Your task to perform on an android device: When is my next appointment? Image 0: 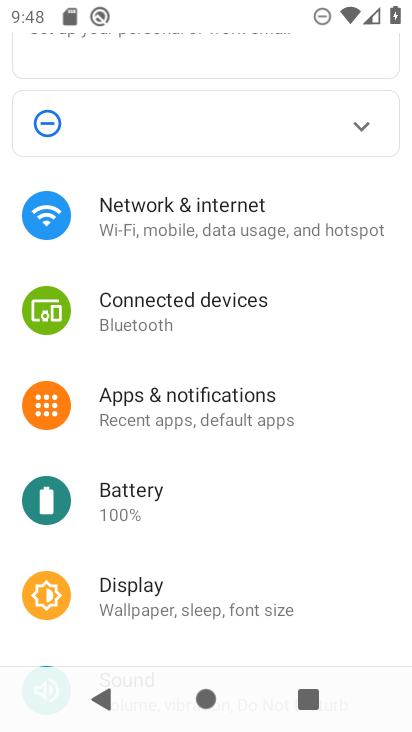
Step 0: press home button
Your task to perform on an android device: When is my next appointment? Image 1: 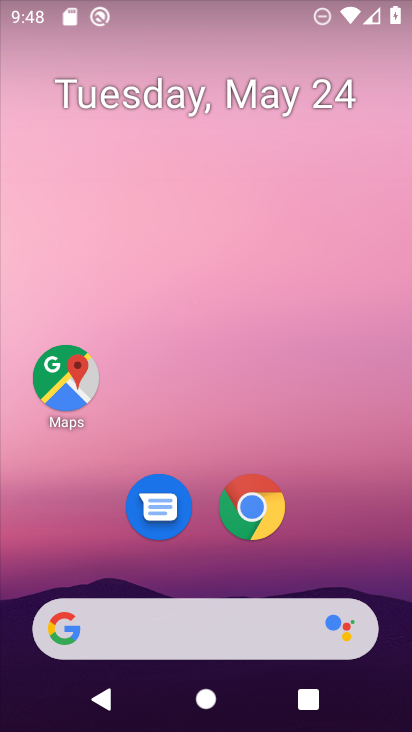
Step 1: drag from (236, 551) to (217, 127)
Your task to perform on an android device: When is my next appointment? Image 2: 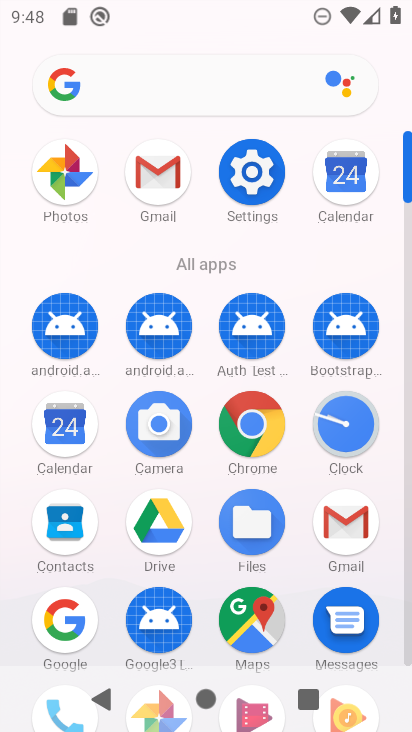
Step 2: click (62, 418)
Your task to perform on an android device: When is my next appointment? Image 3: 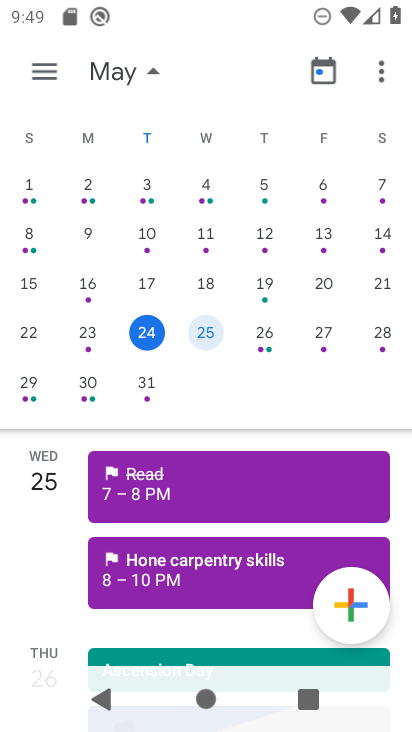
Step 3: click (160, 338)
Your task to perform on an android device: When is my next appointment? Image 4: 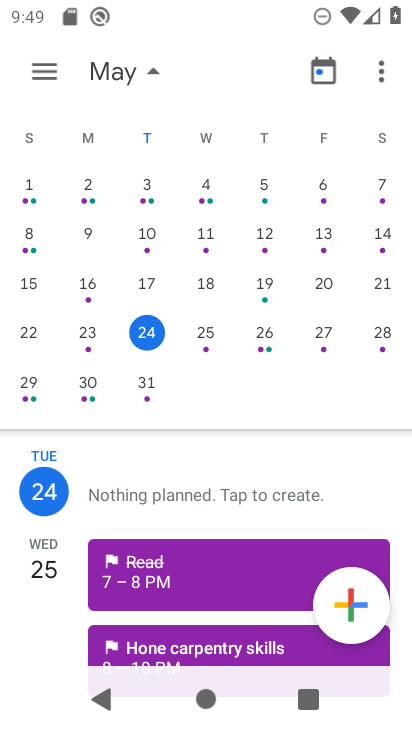
Step 4: task complete